Your task to perform on an android device: Open Chrome and go to settings Image 0: 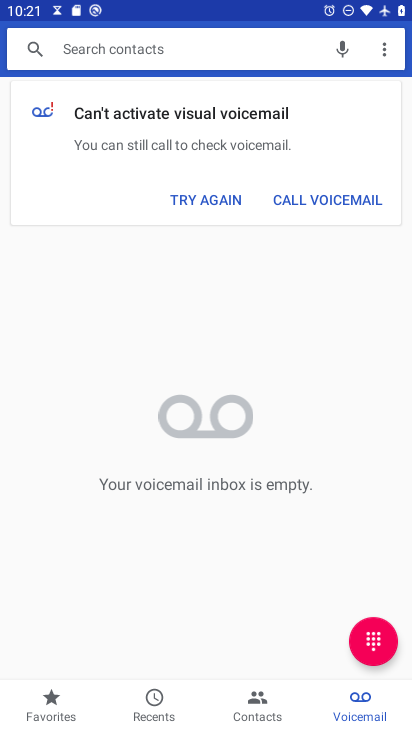
Step 0: press home button
Your task to perform on an android device: Open Chrome and go to settings Image 1: 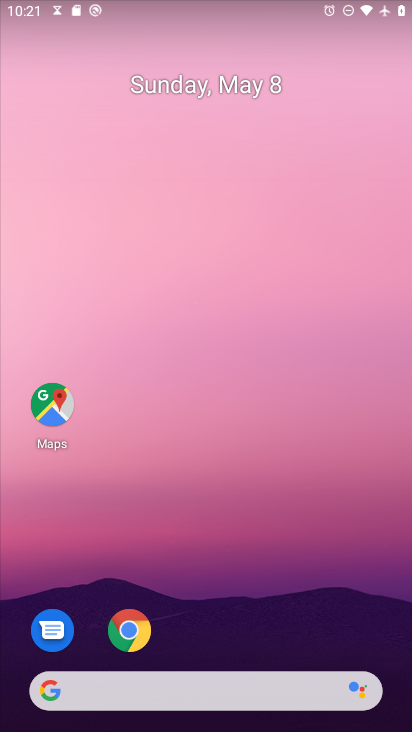
Step 1: click (137, 630)
Your task to perform on an android device: Open Chrome and go to settings Image 2: 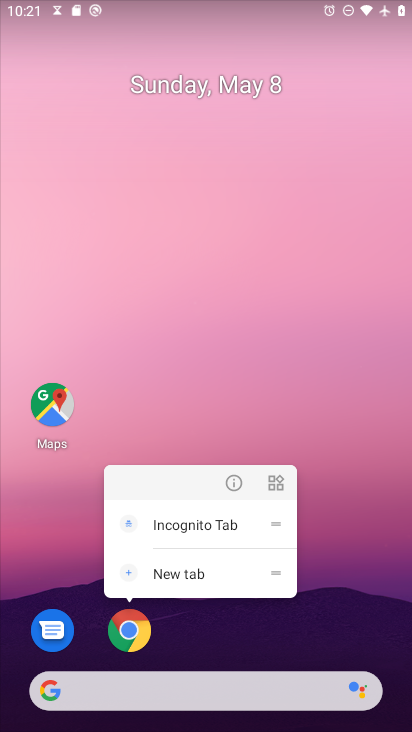
Step 2: click (137, 628)
Your task to perform on an android device: Open Chrome and go to settings Image 3: 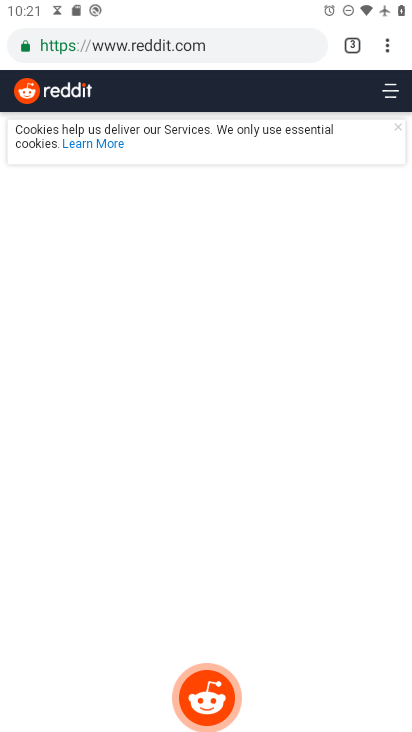
Step 3: drag from (388, 54) to (240, 549)
Your task to perform on an android device: Open Chrome and go to settings Image 4: 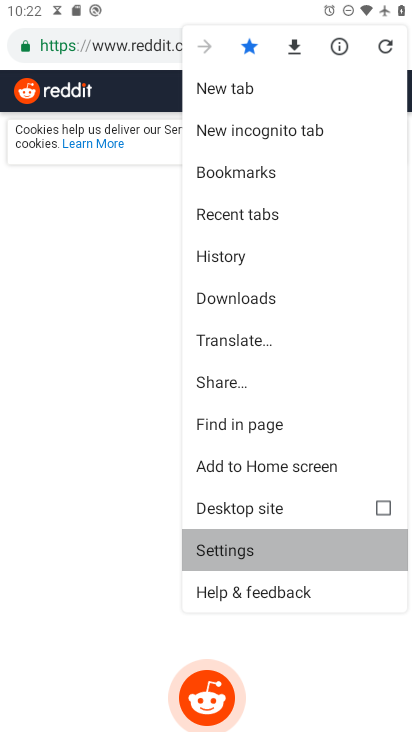
Step 4: click (240, 549)
Your task to perform on an android device: Open Chrome and go to settings Image 5: 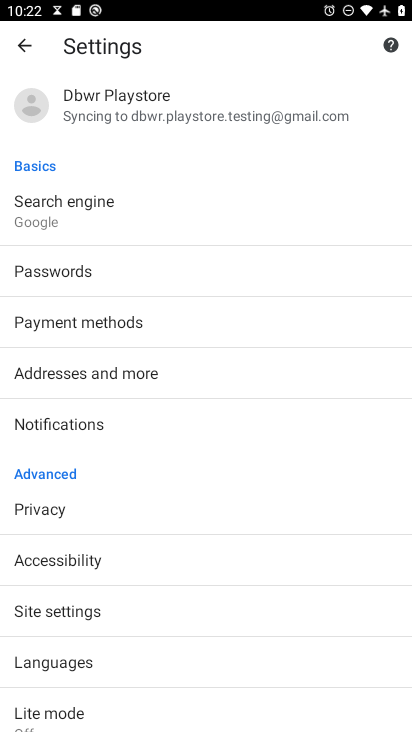
Step 5: task complete